Your task to perform on an android device: Show me productivity apps on the Play Store Image 0: 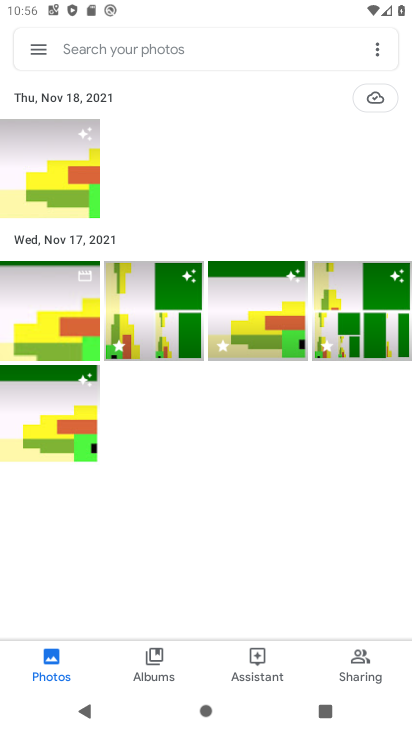
Step 0: press home button
Your task to perform on an android device: Show me productivity apps on the Play Store Image 1: 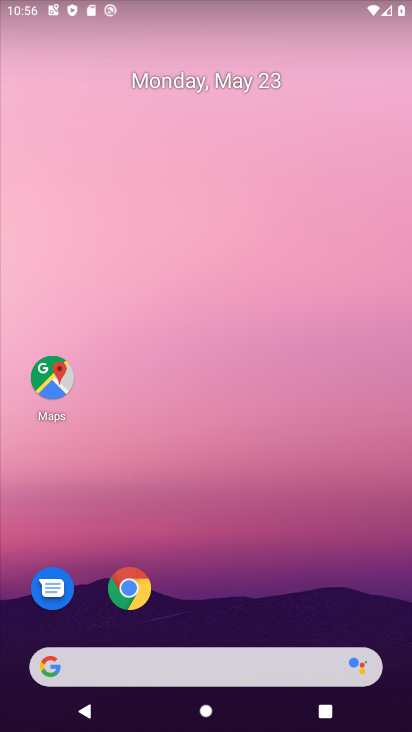
Step 1: drag from (264, 557) to (253, 176)
Your task to perform on an android device: Show me productivity apps on the Play Store Image 2: 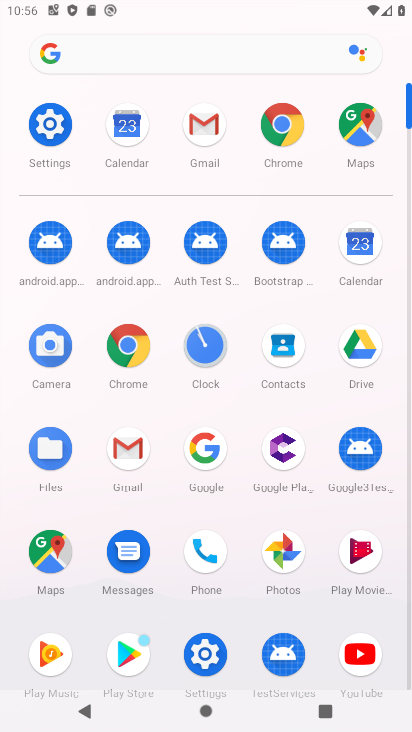
Step 2: click (128, 650)
Your task to perform on an android device: Show me productivity apps on the Play Store Image 3: 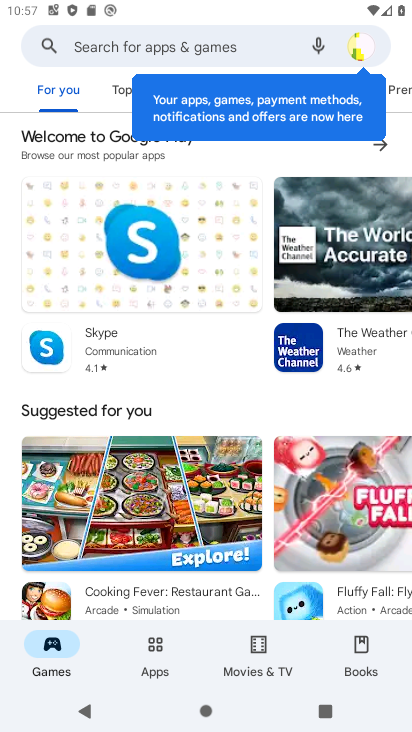
Step 3: click (167, 651)
Your task to perform on an android device: Show me productivity apps on the Play Store Image 4: 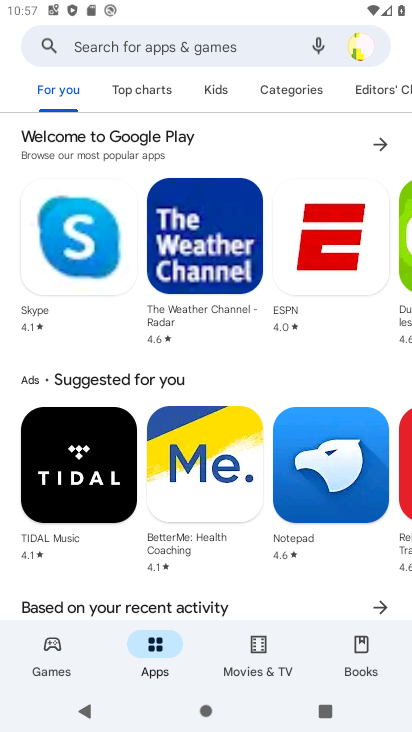
Step 4: task complete